Your task to perform on an android device: Go to network settings Image 0: 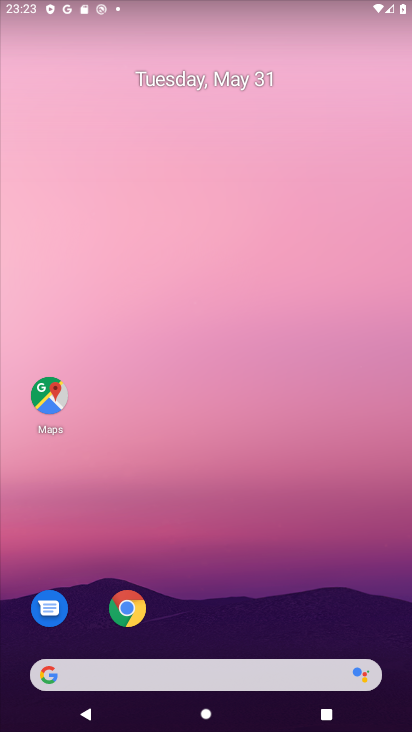
Step 0: press home button
Your task to perform on an android device: Go to network settings Image 1: 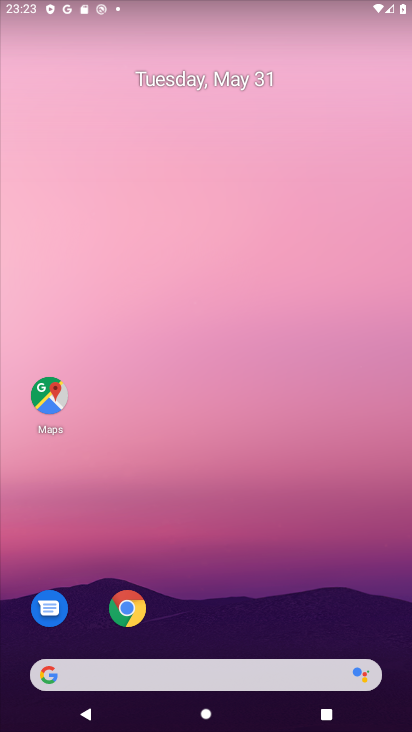
Step 1: drag from (233, 639) to (297, 391)
Your task to perform on an android device: Go to network settings Image 2: 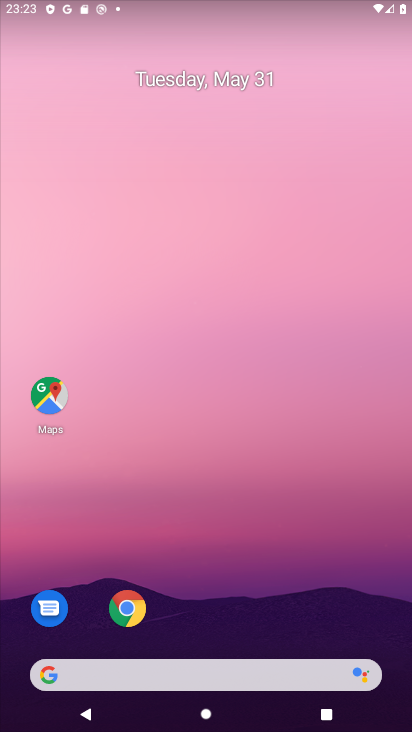
Step 2: drag from (318, 513) to (358, 20)
Your task to perform on an android device: Go to network settings Image 3: 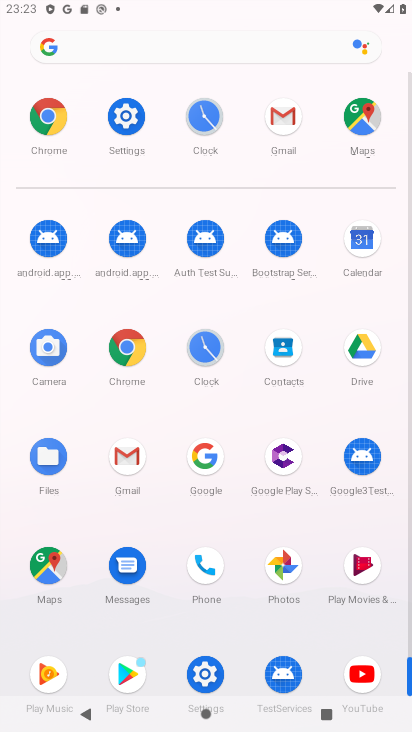
Step 3: click (133, 114)
Your task to perform on an android device: Go to network settings Image 4: 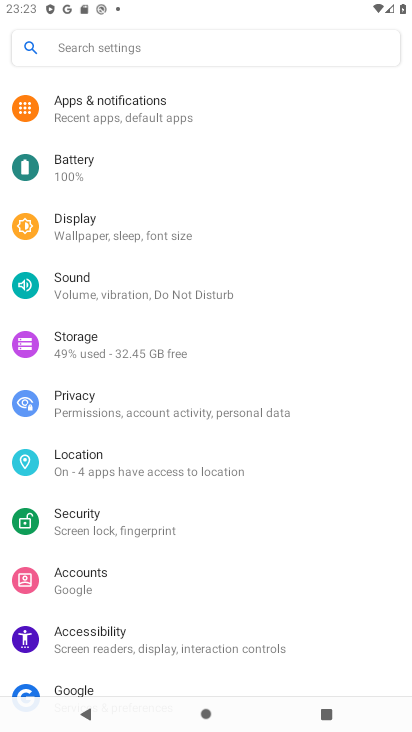
Step 4: drag from (142, 162) to (147, 675)
Your task to perform on an android device: Go to network settings Image 5: 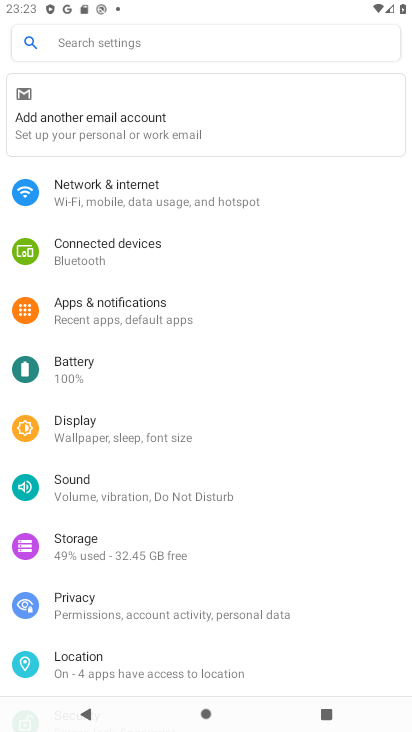
Step 5: click (207, 210)
Your task to perform on an android device: Go to network settings Image 6: 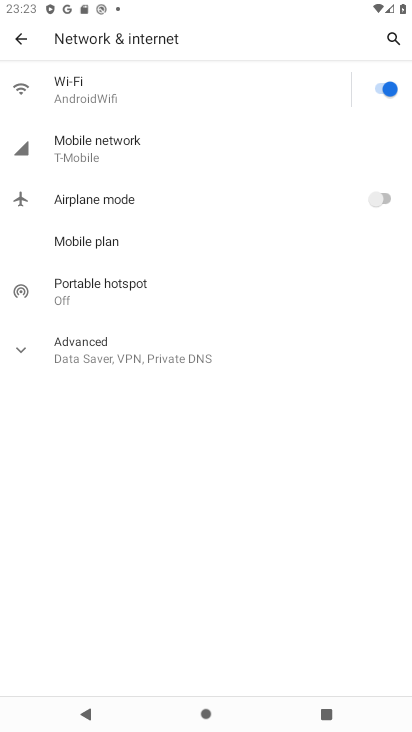
Step 6: task complete